Your task to perform on an android device: Turn on the flashlight Image 0: 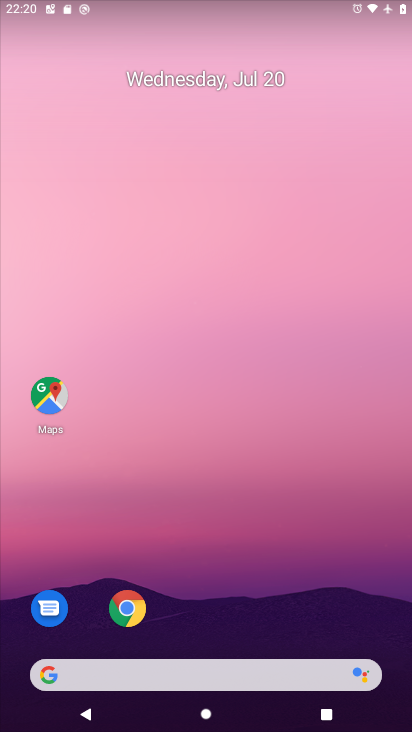
Step 0: drag from (175, 585) to (175, 82)
Your task to perform on an android device: Turn on the flashlight Image 1: 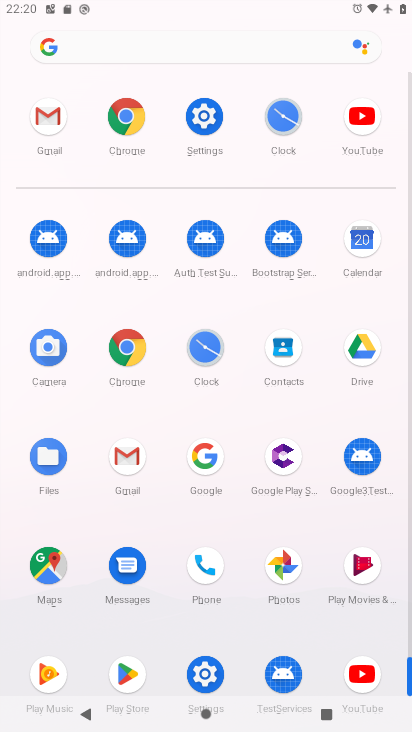
Step 1: click (199, 108)
Your task to perform on an android device: Turn on the flashlight Image 2: 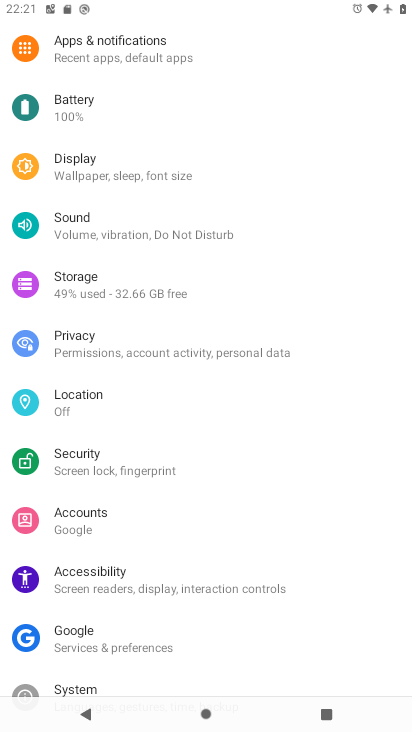
Step 2: task complete